Your task to perform on an android device: Open the map Image 0: 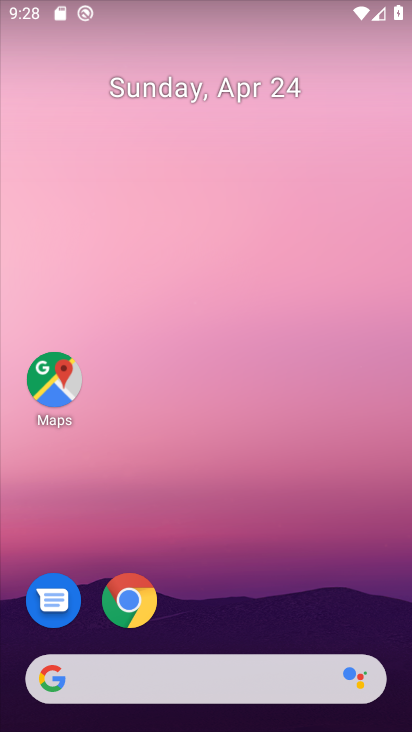
Step 0: click (75, 390)
Your task to perform on an android device: Open the map Image 1: 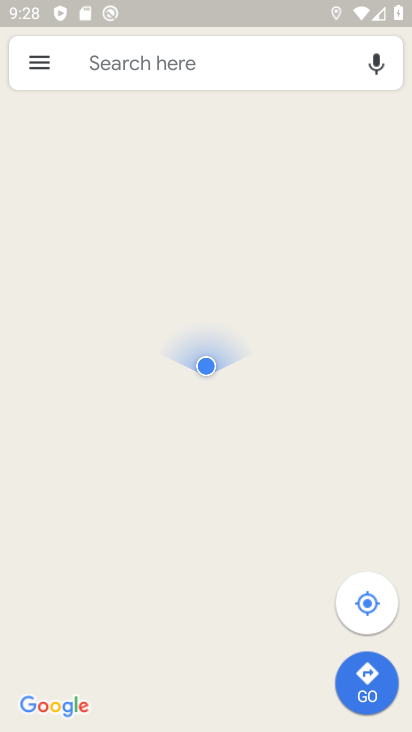
Step 1: task complete